Your task to perform on an android device: allow cookies in the chrome app Image 0: 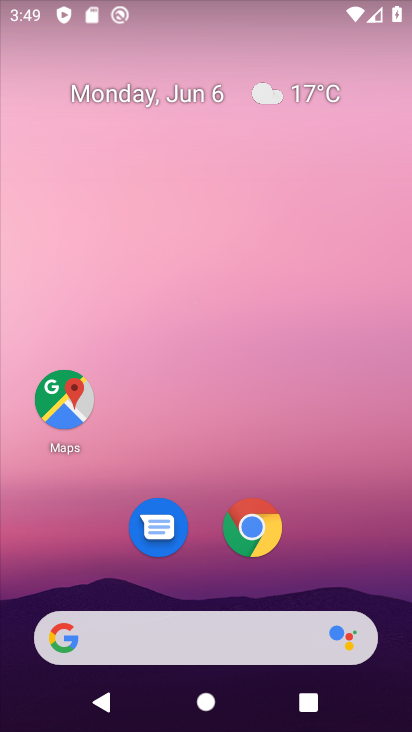
Step 0: click (252, 536)
Your task to perform on an android device: allow cookies in the chrome app Image 1: 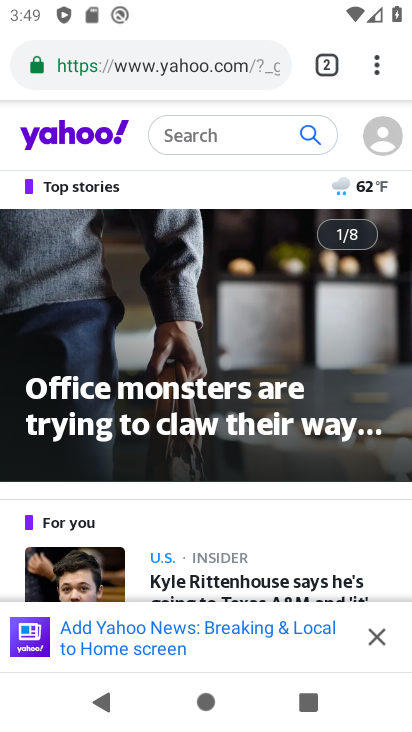
Step 1: click (377, 53)
Your task to perform on an android device: allow cookies in the chrome app Image 2: 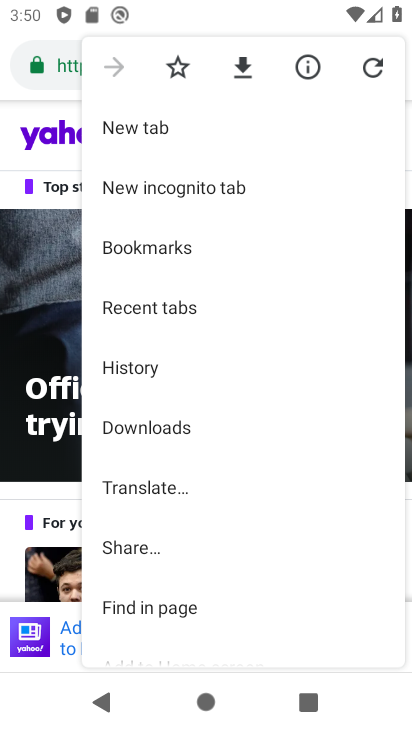
Step 2: drag from (310, 568) to (262, 216)
Your task to perform on an android device: allow cookies in the chrome app Image 3: 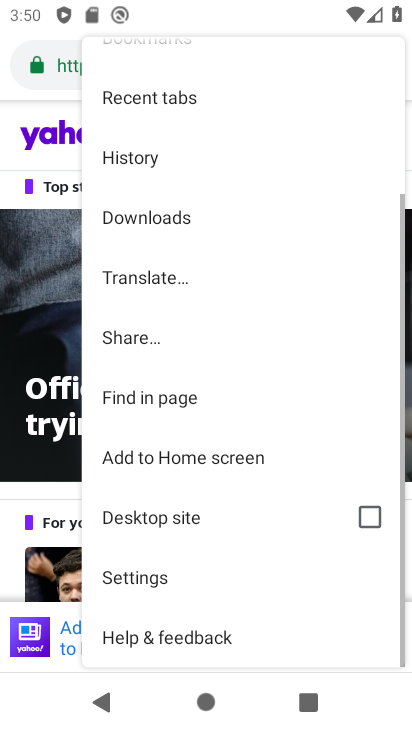
Step 3: click (112, 572)
Your task to perform on an android device: allow cookies in the chrome app Image 4: 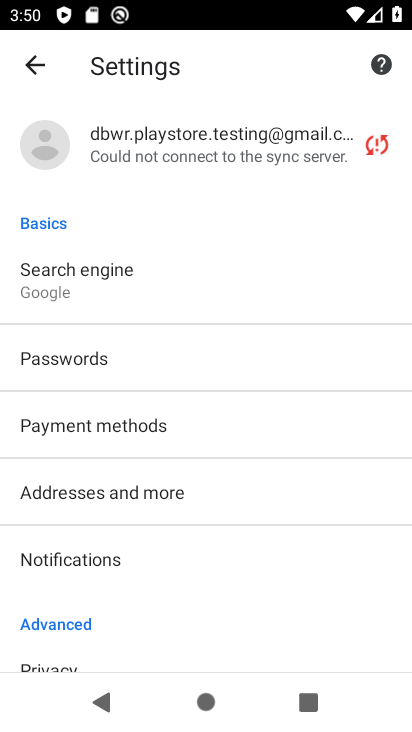
Step 4: drag from (318, 584) to (318, 256)
Your task to perform on an android device: allow cookies in the chrome app Image 5: 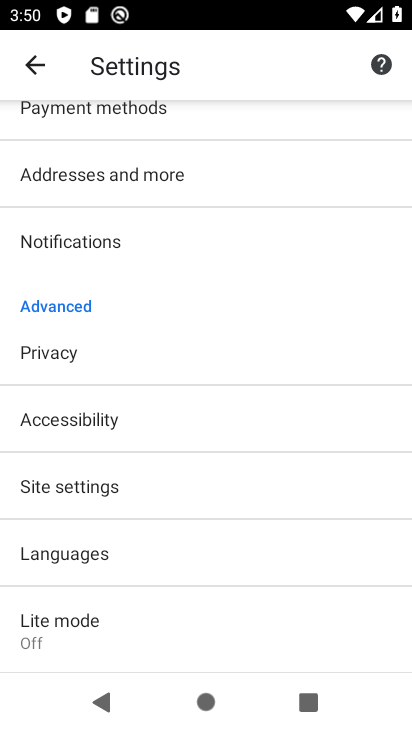
Step 5: click (150, 478)
Your task to perform on an android device: allow cookies in the chrome app Image 6: 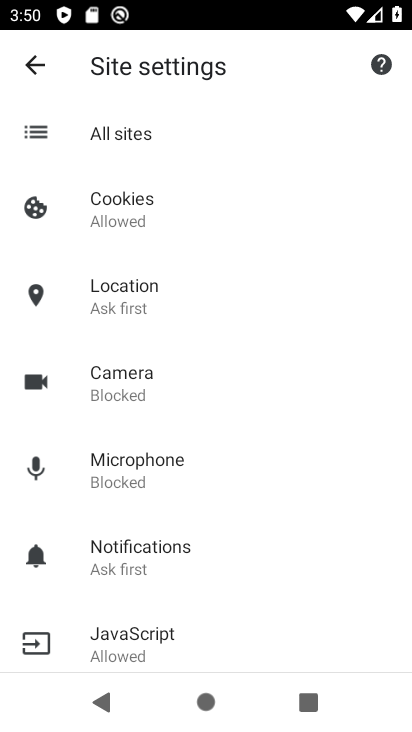
Step 6: click (183, 201)
Your task to perform on an android device: allow cookies in the chrome app Image 7: 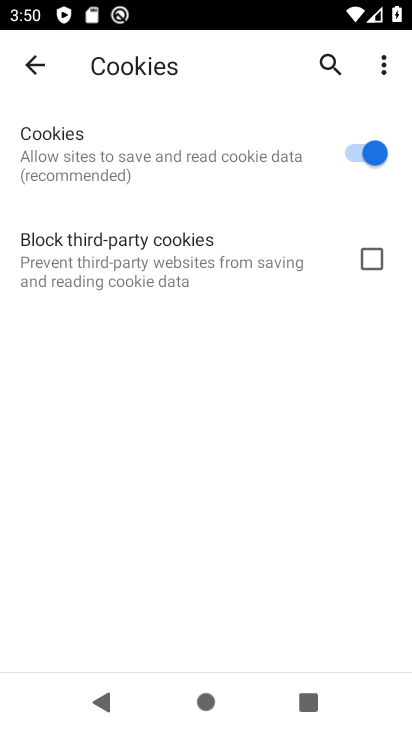
Step 7: task complete